Your task to perform on an android device: show emergency info Image 0: 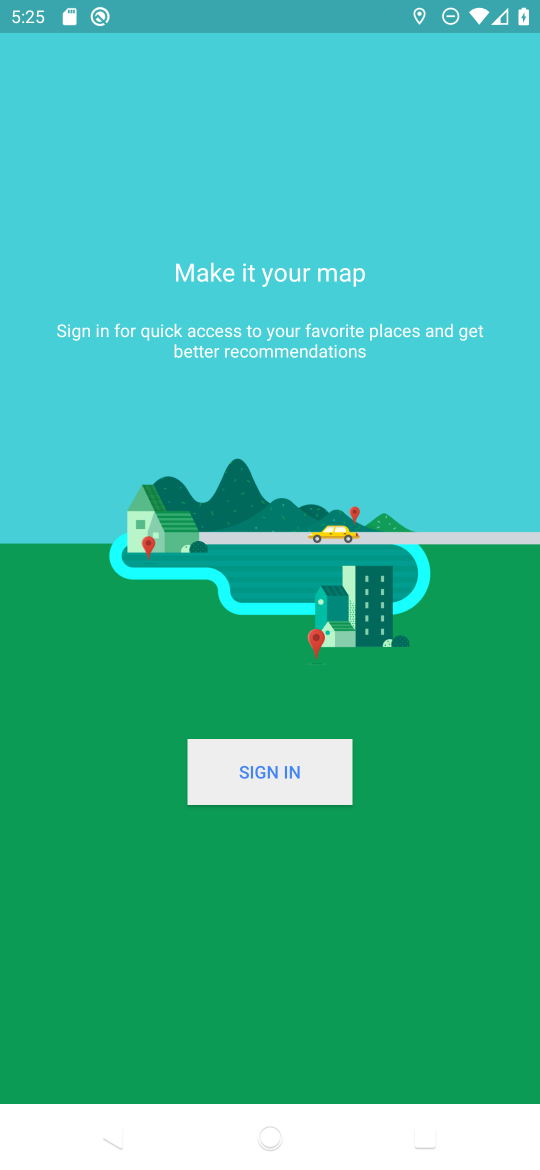
Step 0: press home button
Your task to perform on an android device: show emergency info Image 1: 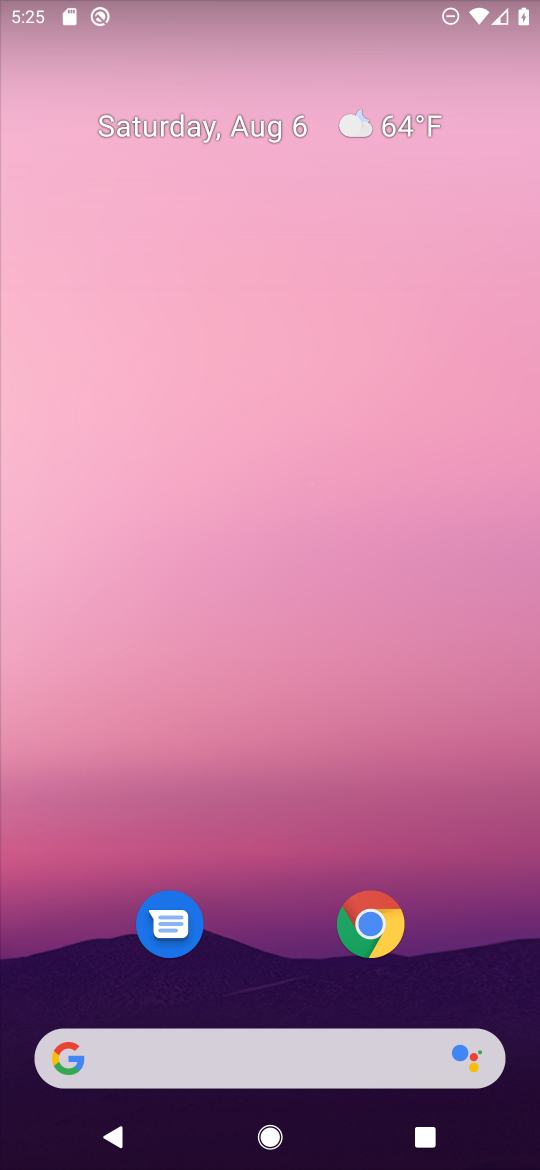
Step 1: press home button
Your task to perform on an android device: show emergency info Image 2: 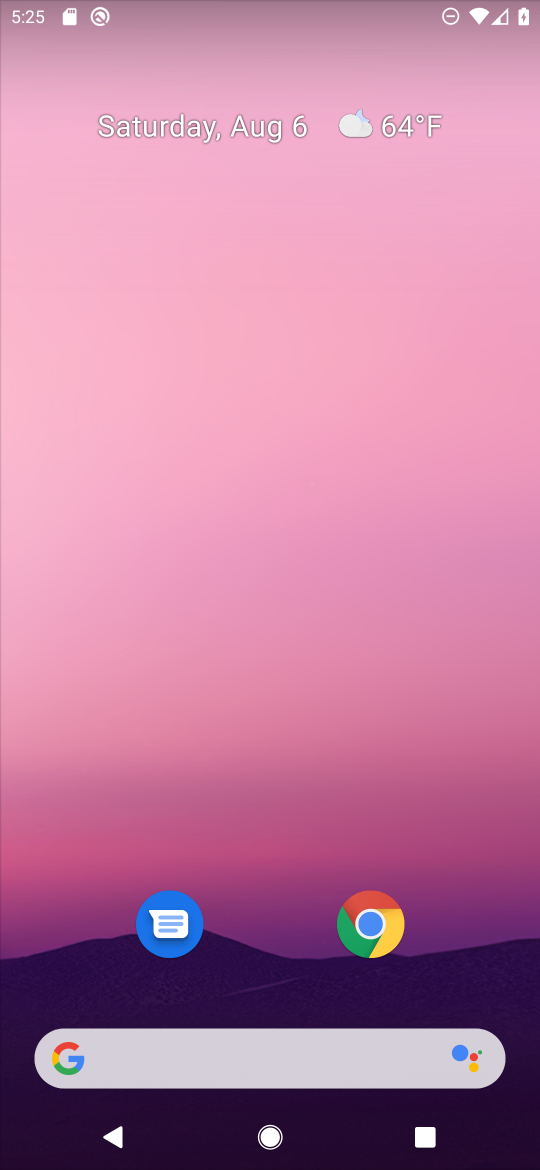
Step 2: drag from (252, 891) to (390, 14)
Your task to perform on an android device: show emergency info Image 3: 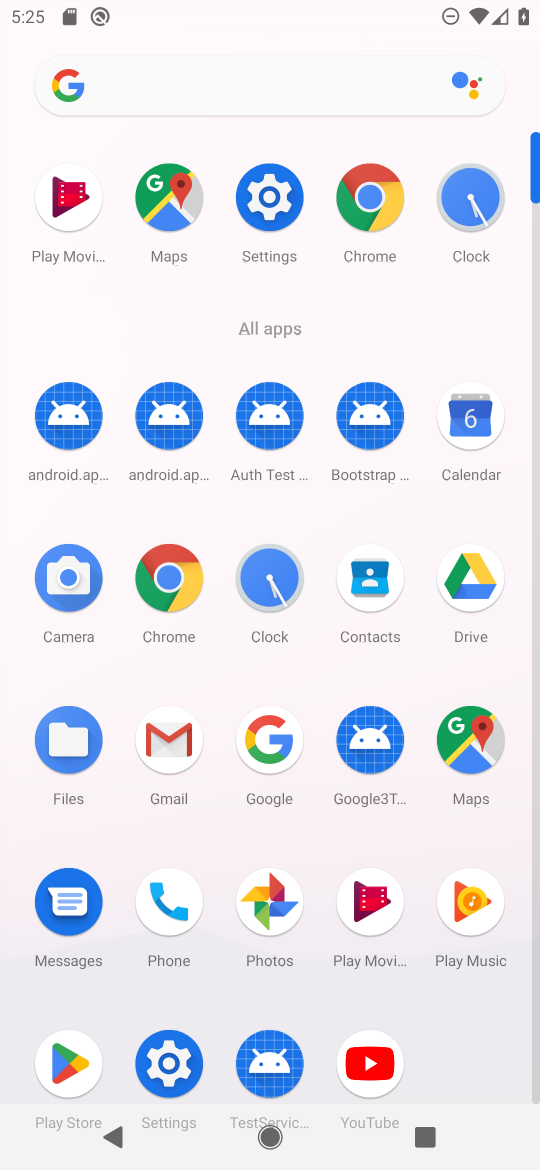
Step 3: click (268, 304)
Your task to perform on an android device: show emergency info Image 4: 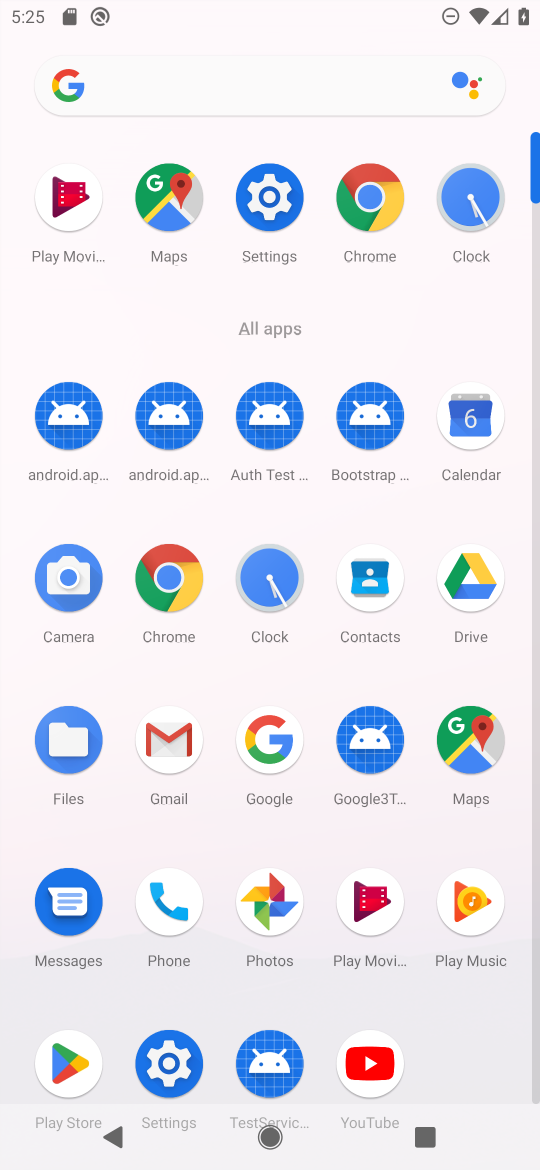
Step 4: click (269, 199)
Your task to perform on an android device: show emergency info Image 5: 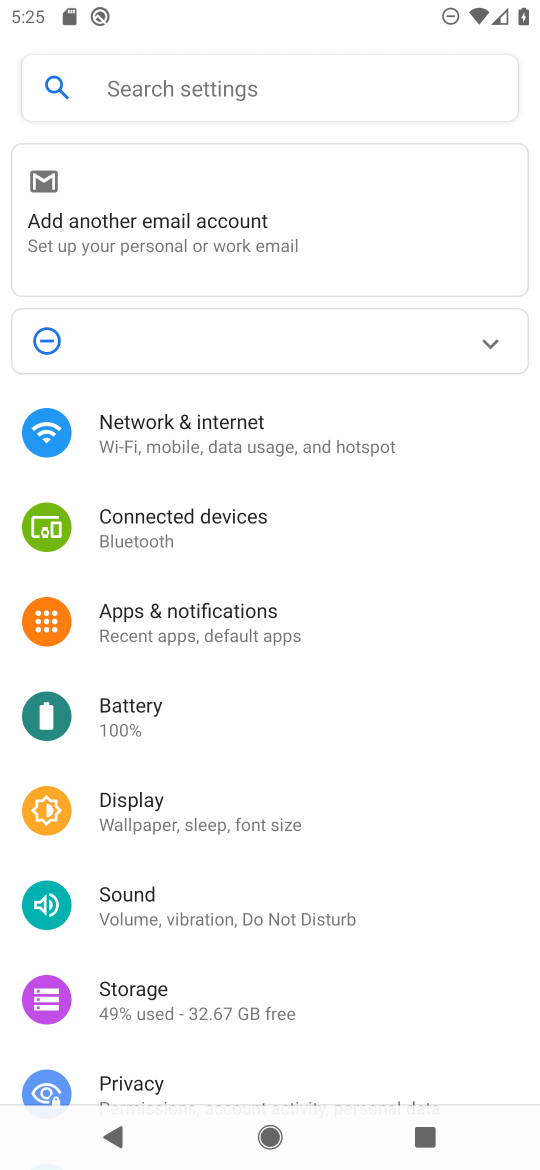
Step 5: drag from (236, 996) to (237, 433)
Your task to perform on an android device: show emergency info Image 6: 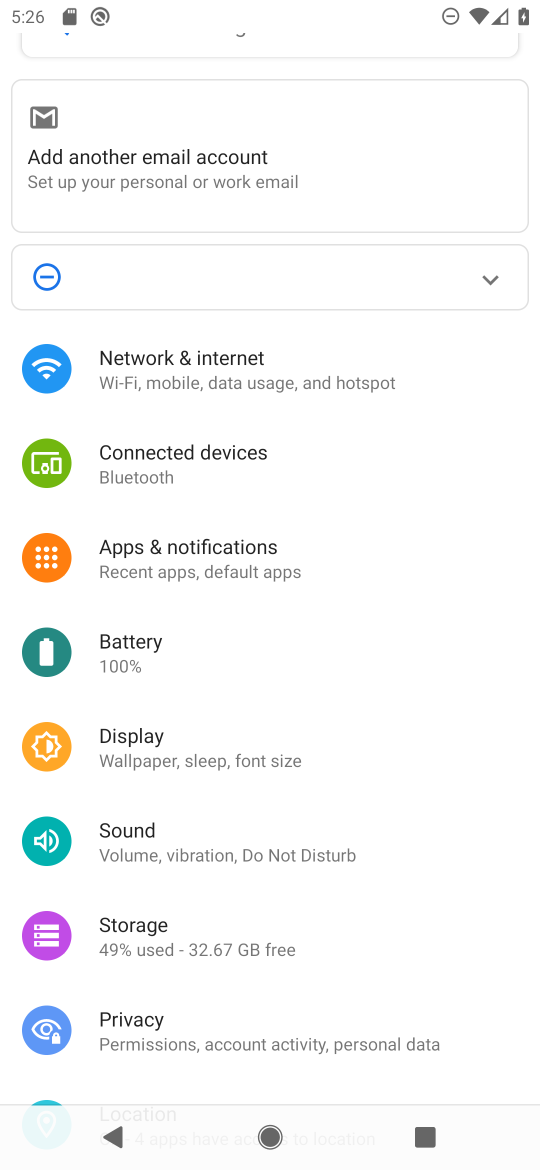
Step 6: drag from (257, 978) to (209, 418)
Your task to perform on an android device: show emergency info Image 7: 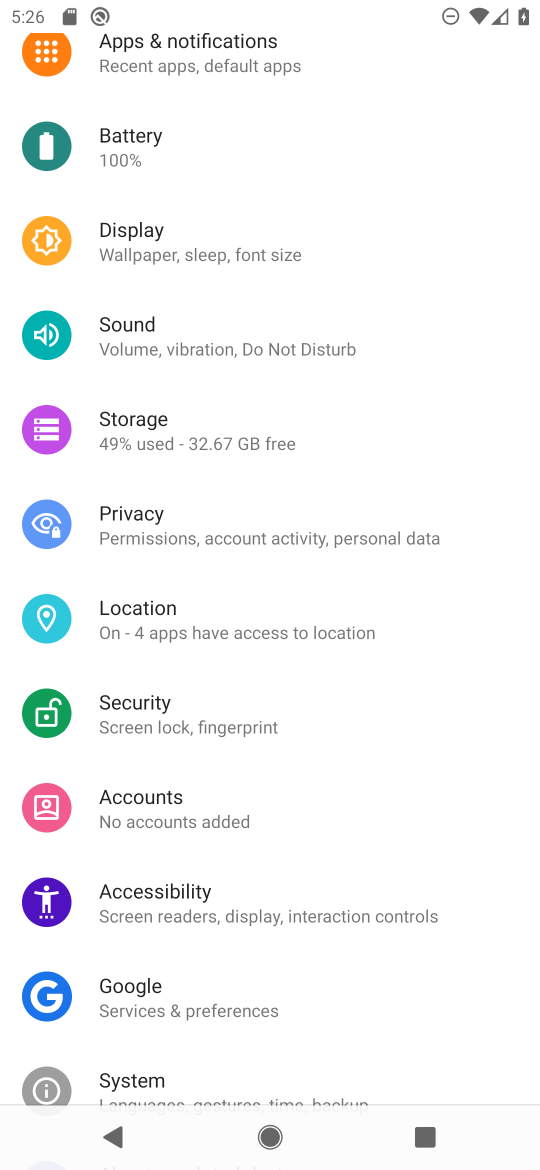
Step 7: drag from (227, 1038) to (201, 448)
Your task to perform on an android device: show emergency info Image 8: 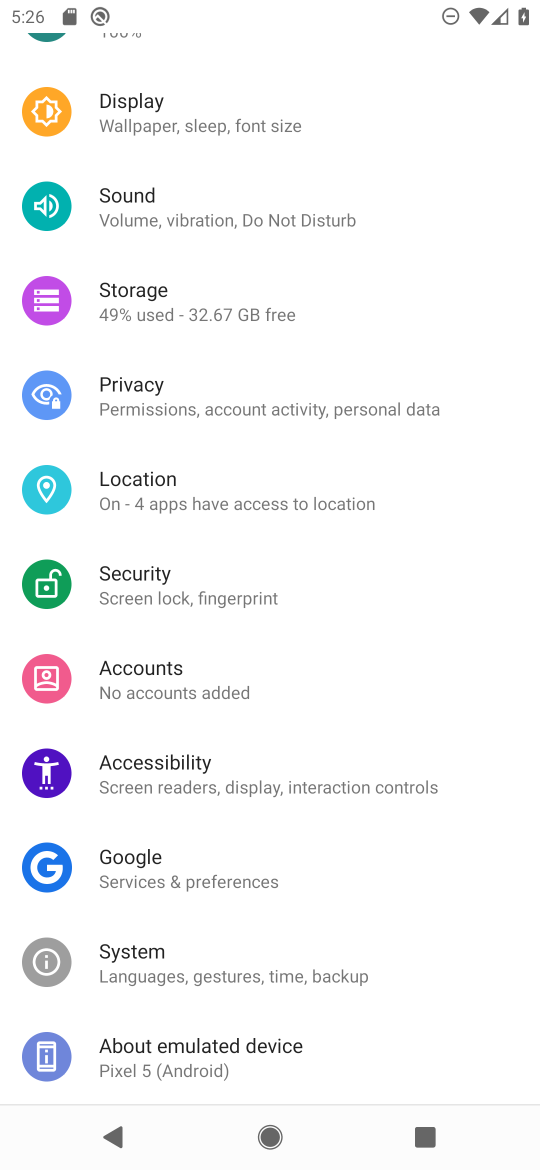
Step 8: click (156, 1053)
Your task to perform on an android device: show emergency info Image 9: 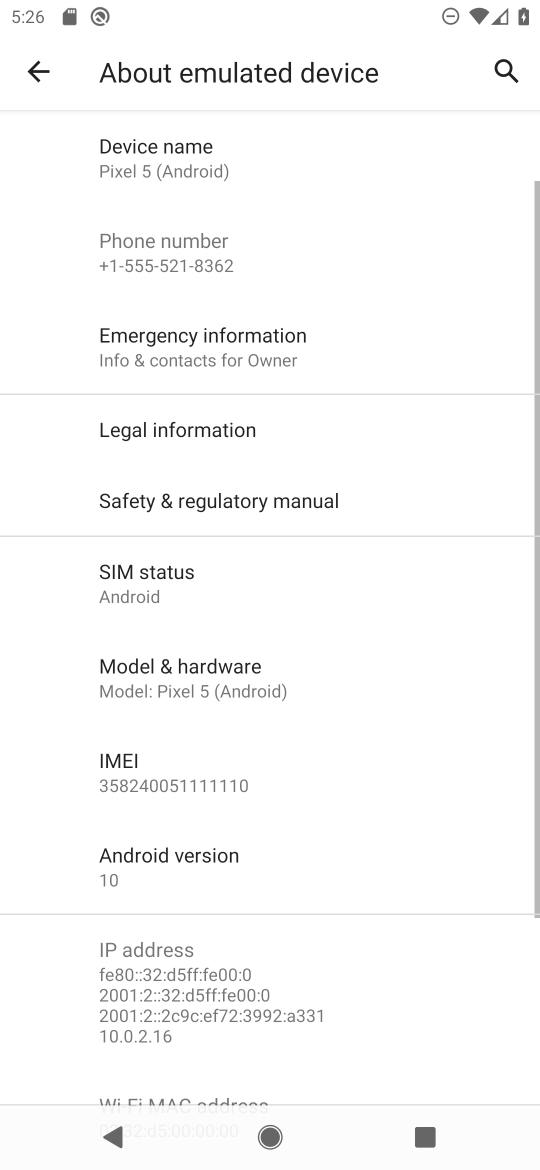
Step 9: click (198, 349)
Your task to perform on an android device: show emergency info Image 10: 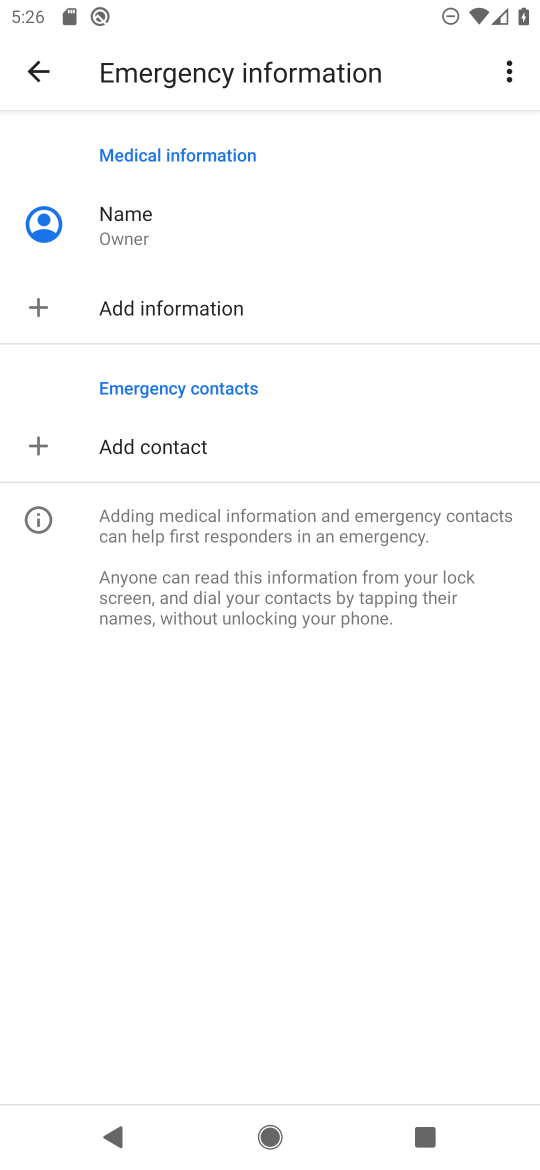
Step 10: task complete